Your task to perform on an android device: all mails in gmail Image 0: 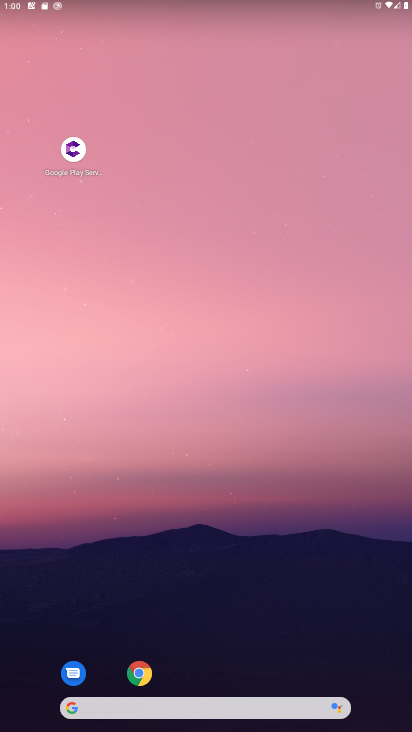
Step 0: drag from (218, 652) to (223, 233)
Your task to perform on an android device: all mails in gmail Image 1: 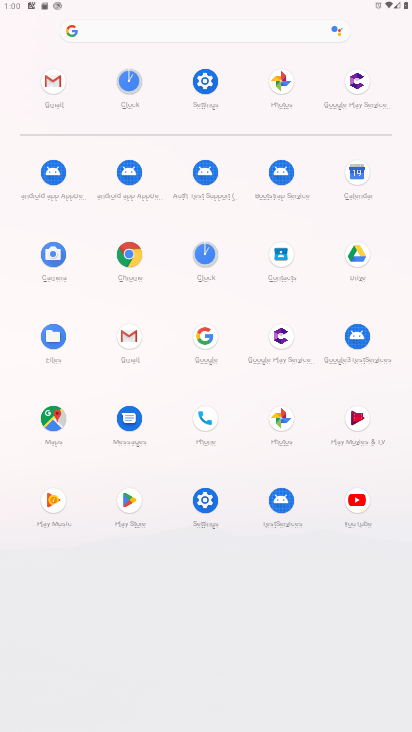
Step 1: click (57, 86)
Your task to perform on an android device: all mails in gmail Image 2: 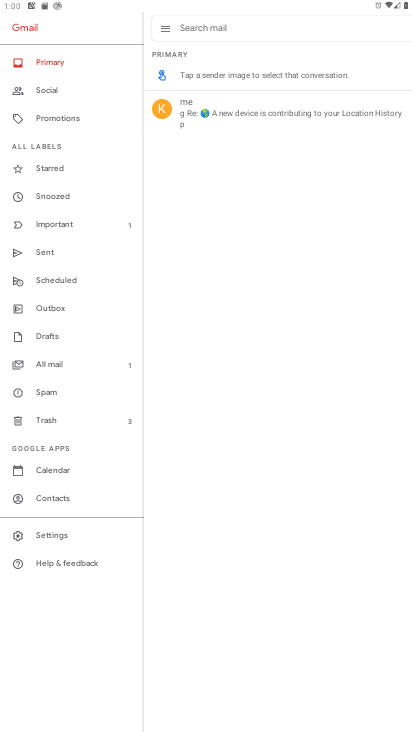
Step 2: click (74, 360)
Your task to perform on an android device: all mails in gmail Image 3: 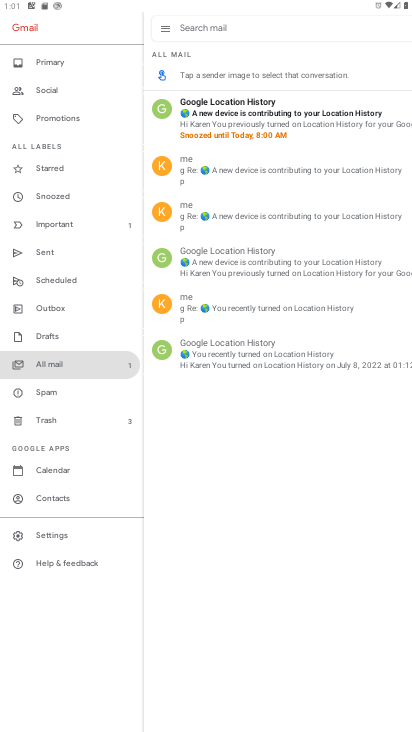
Step 3: task complete